Your task to perform on an android device: Show me recent news Image 0: 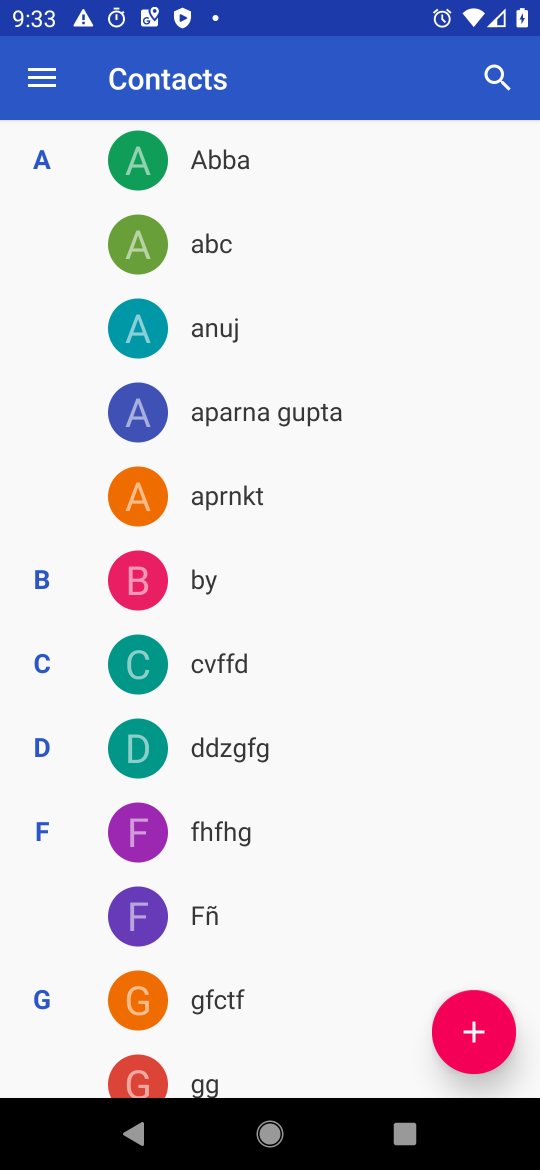
Step 0: press home button
Your task to perform on an android device: Show me recent news Image 1: 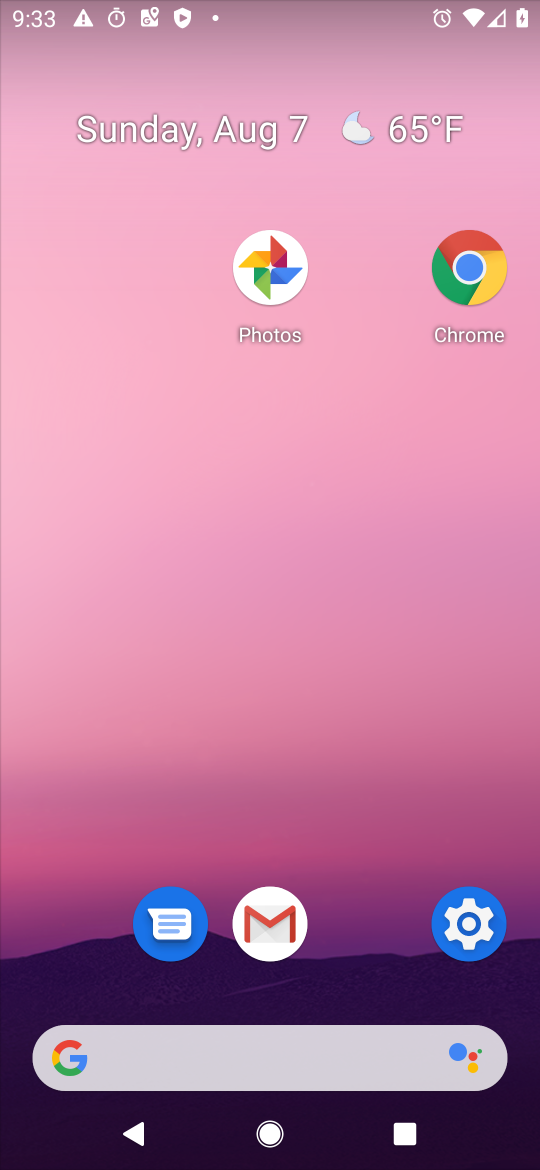
Step 1: click (282, 1070)
Your task to perform on an android device: Show me recent news Image 2: 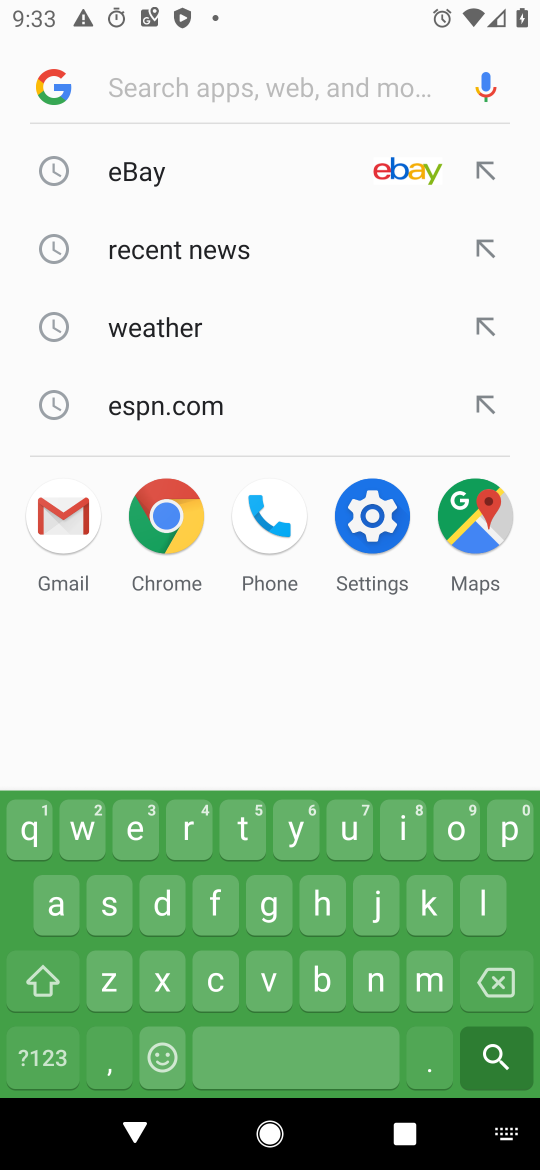
Step 2: click (245, 230)
Your task to perform on an android device: Show me recent news Image 3: 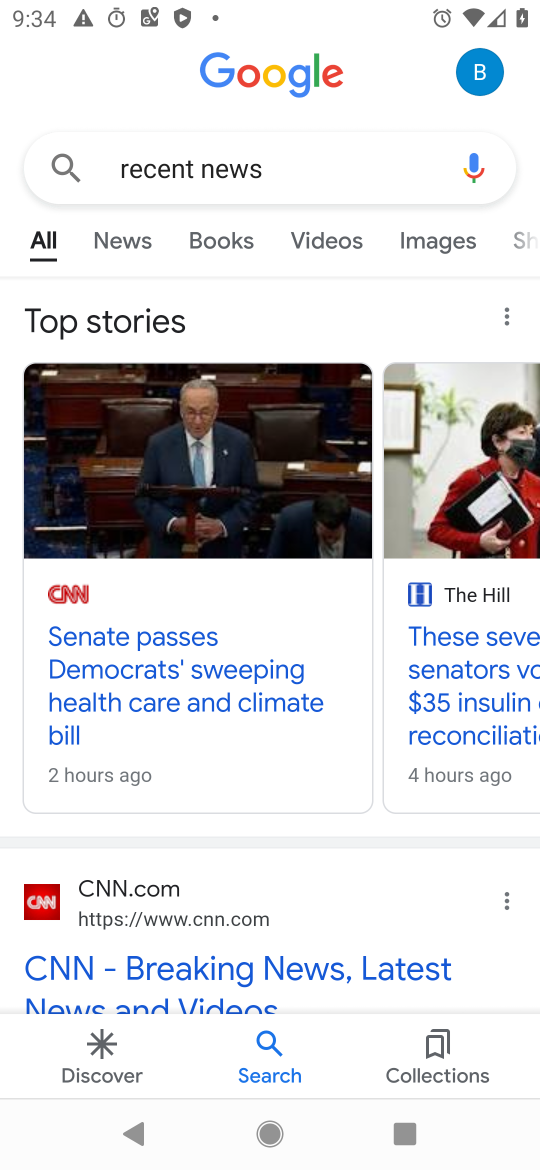
Step 3: task complete